Your task to perform on an android device: Open settings Image 0: 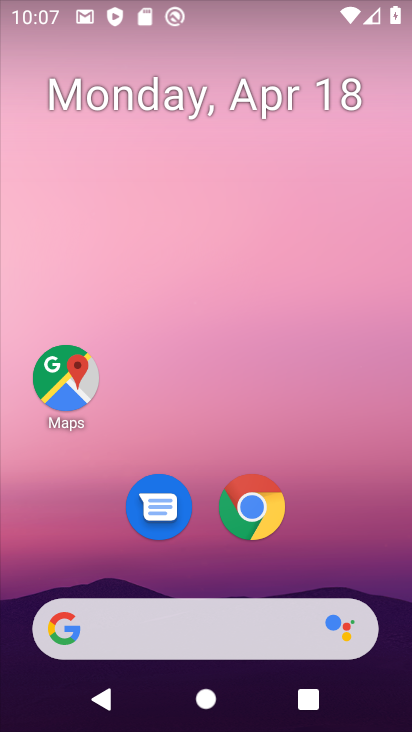
Step 0: drag from (345, 526) to (350, 45)
Your task to perform on an android device: Open settings Image 1: 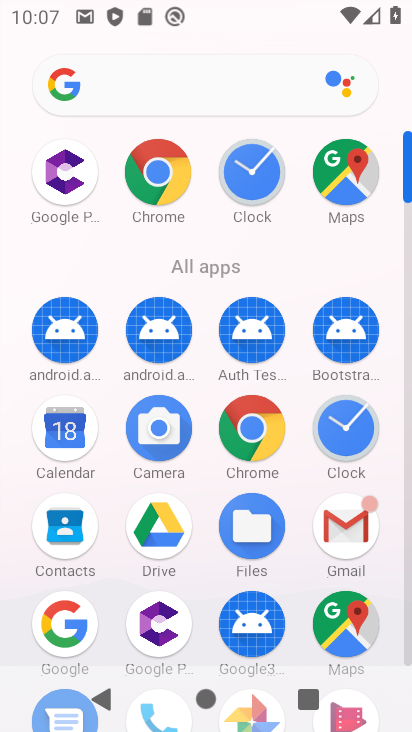
Step 1: drag from (109, 559) to (159, 218)
Your task to perform on an android device: Open settings Image 2: 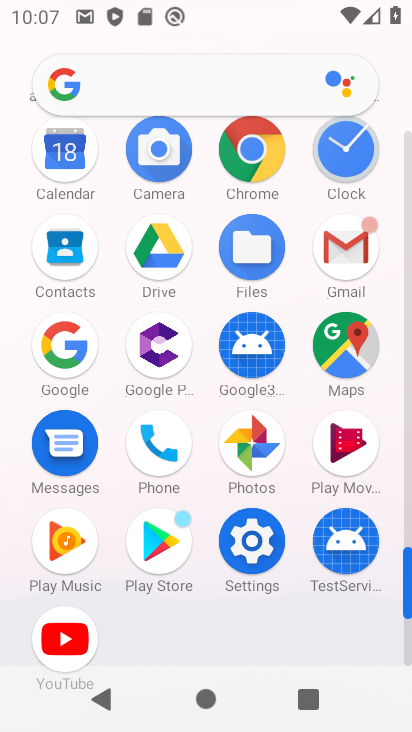
Step 2: click (250, 533)
Your task to perform on an android device: Open settings Image 3: 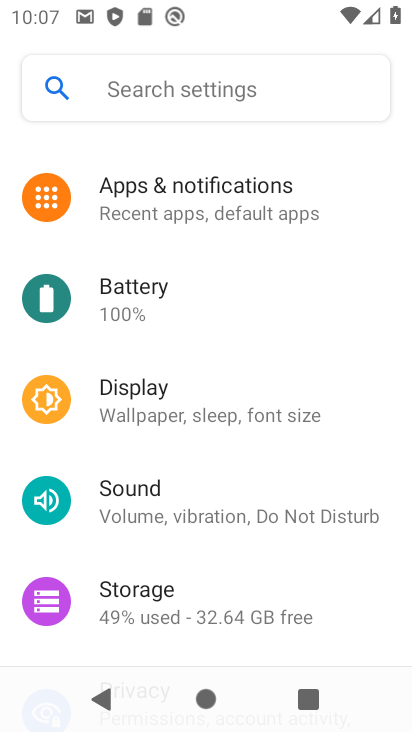
Step 3: task complete